Your task to perform on an android device: see sites visited before in the chrome app Image 0: 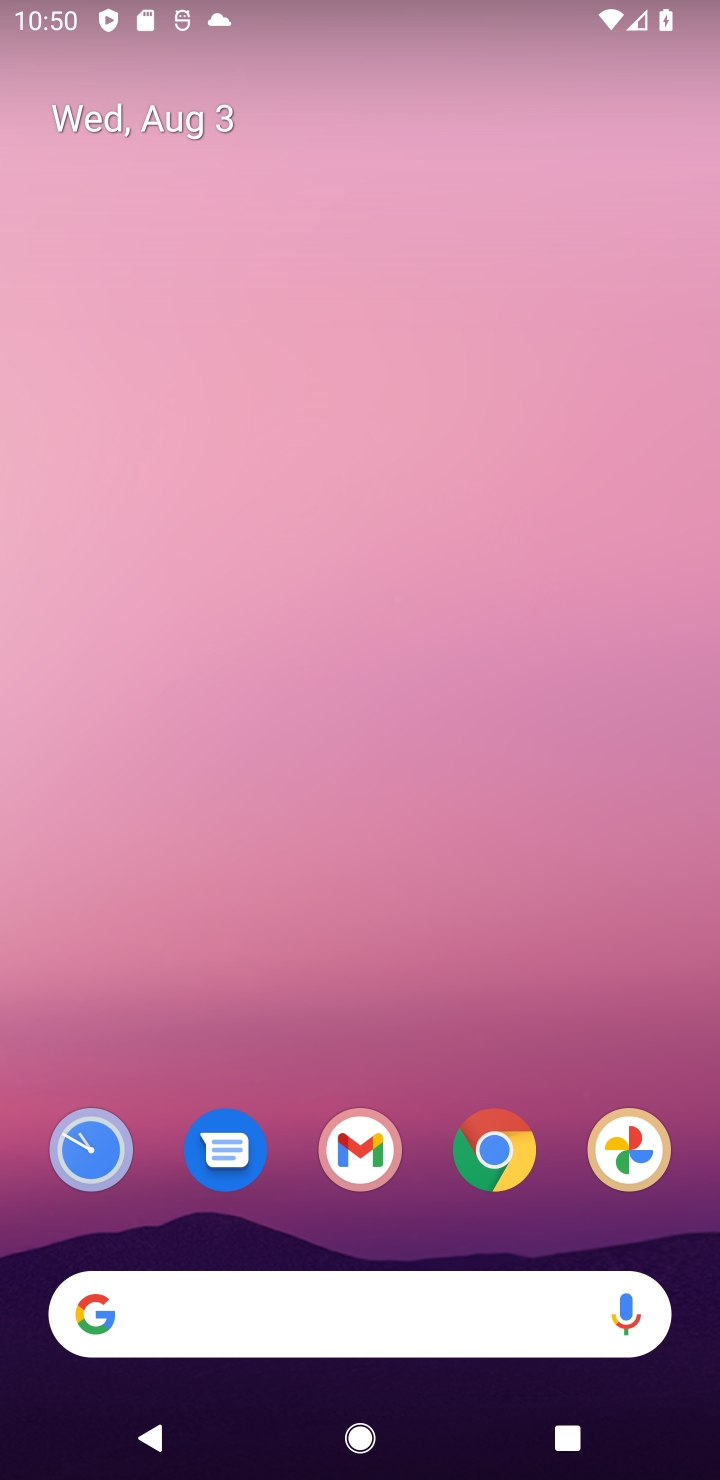
Step 0: press home button
Your task to perform on an android device: see sites visited before in the chrome app Image 1: 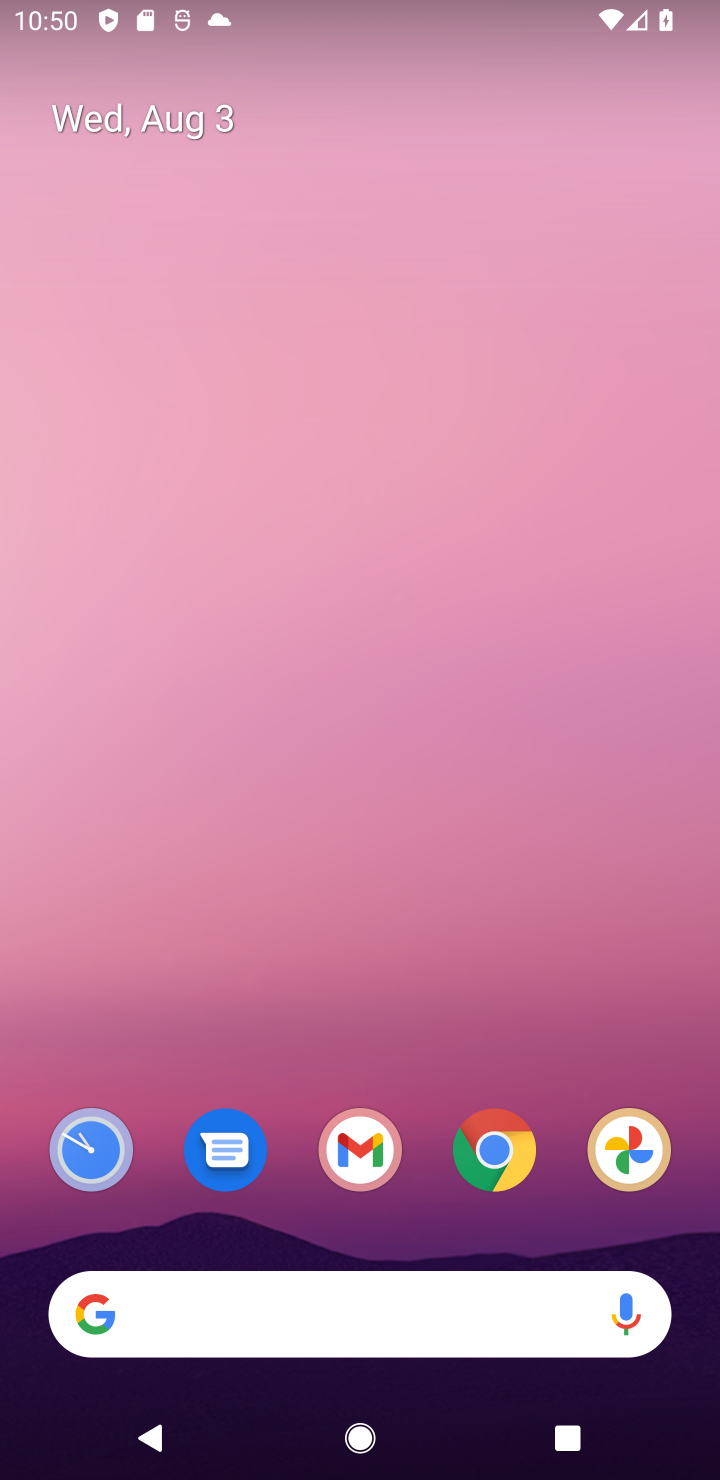
Step 1: drag from (554, 1099) to (557, 164)
Your task to perform on an android device: see sites visited before in the chrome app Image 2: 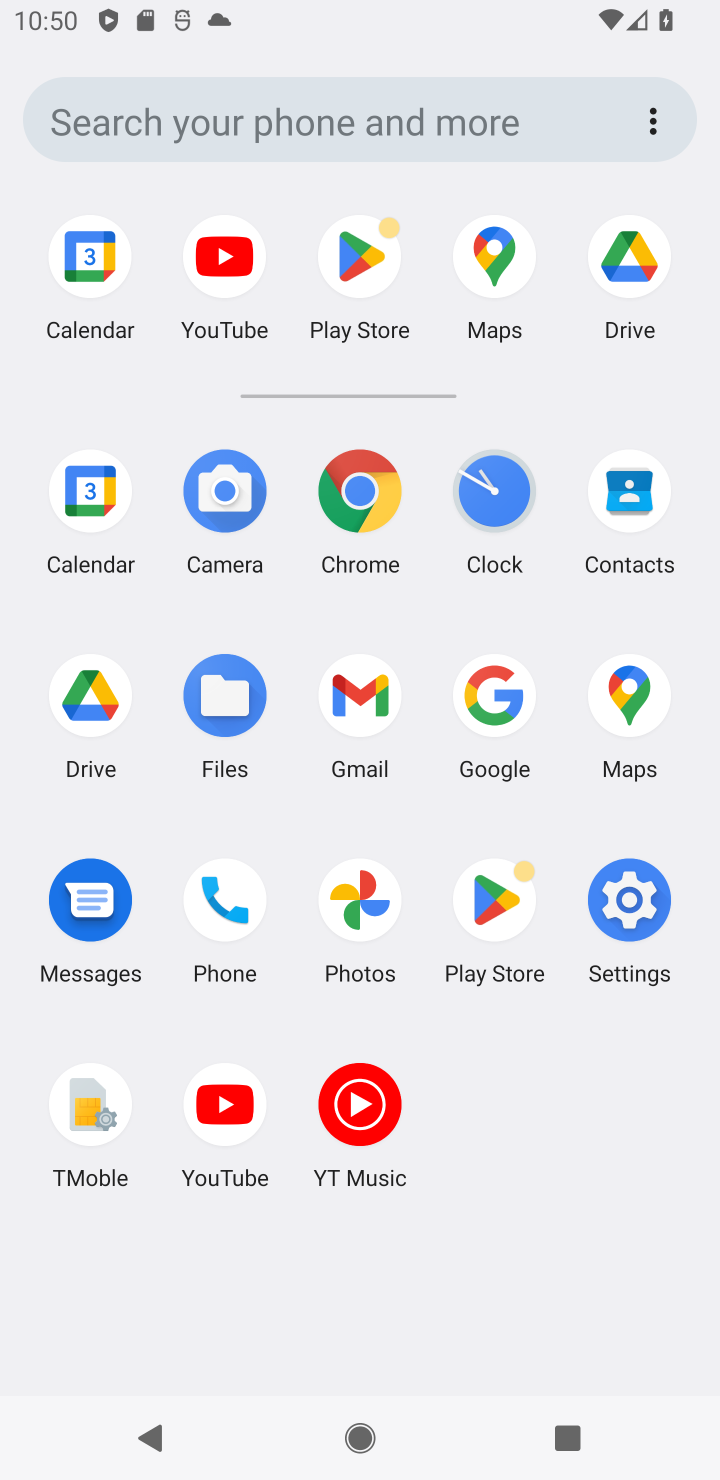
Step 2: click (374, 508)
Your task to perform on an android device: see sites visited before in the chrome app Image 3: 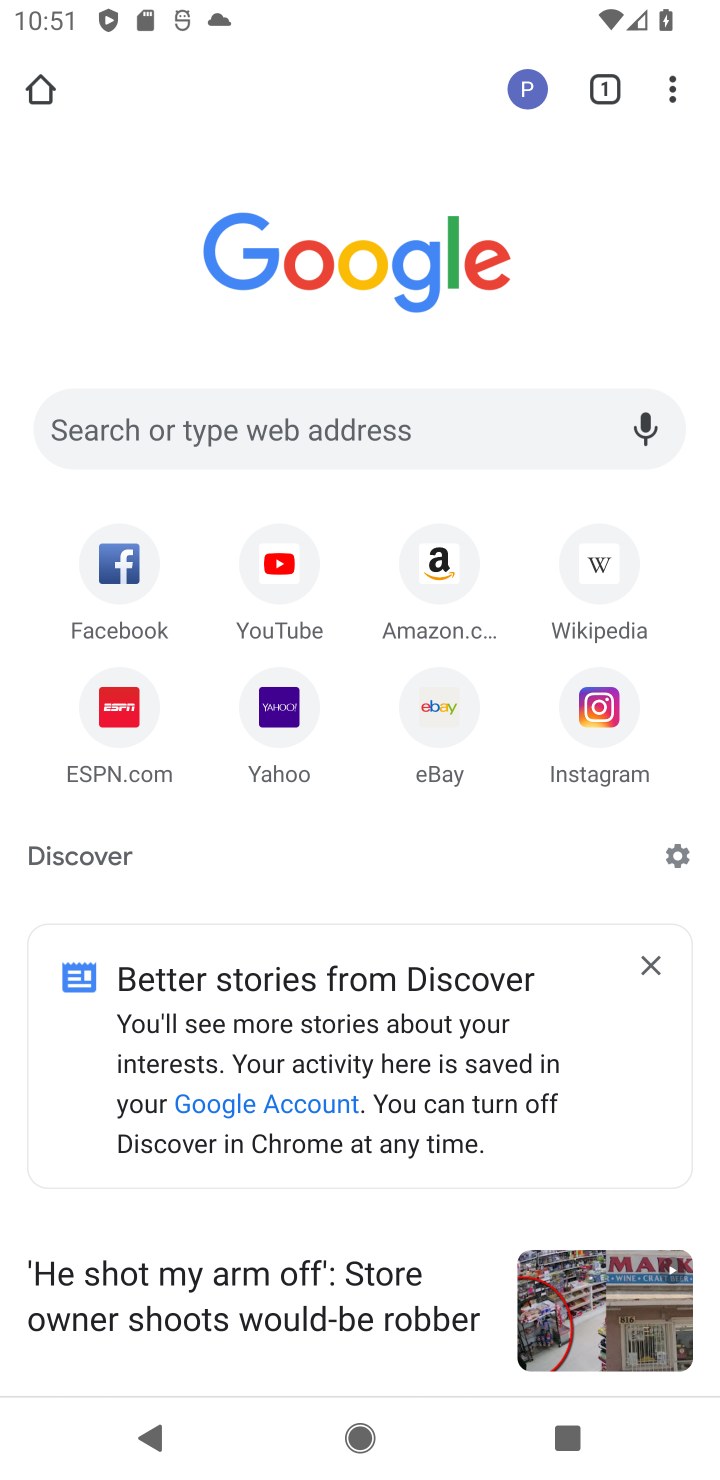
Step 3: click (669, 87)
Your task to perform on an android device: see sites visited before in the chrome app Image 4: 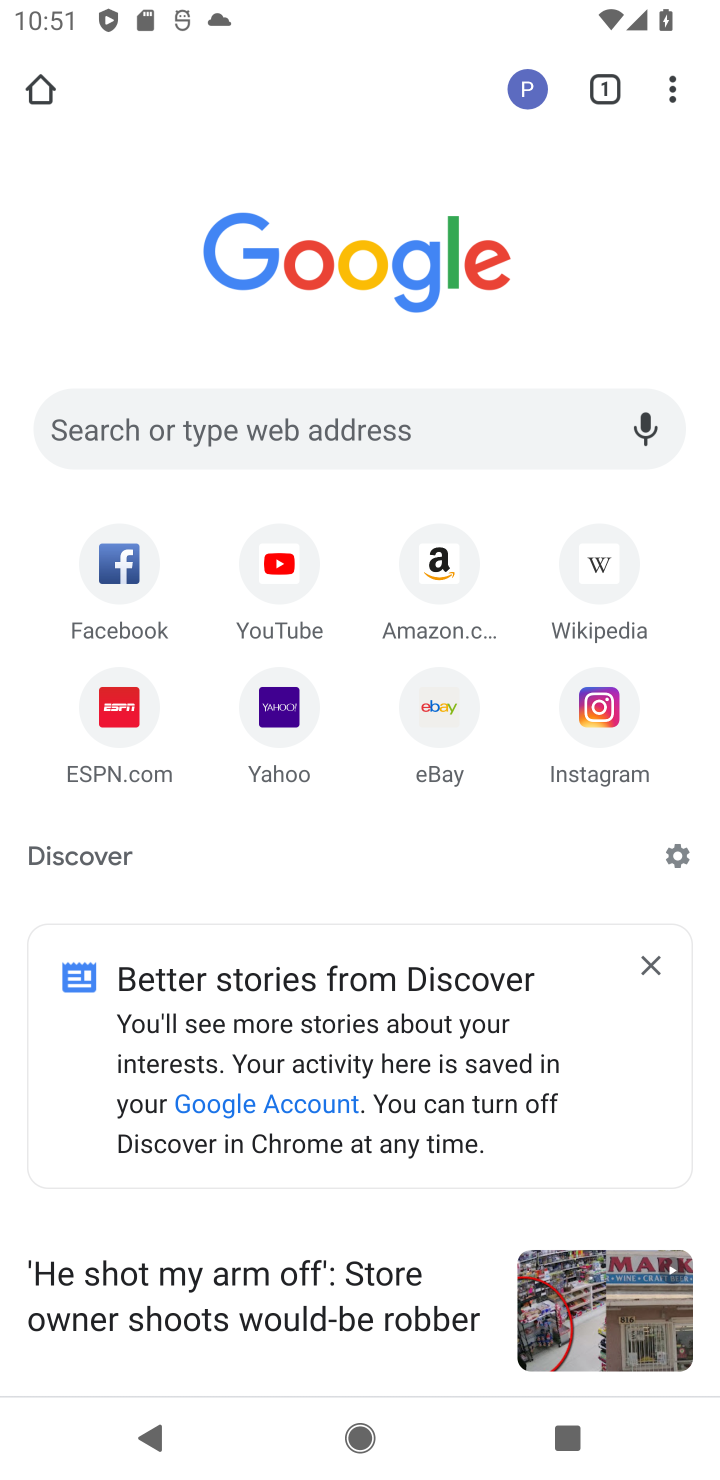
Step 4: click (673, 94)
Your task to perform on an android device: see sites visited before in the chrome app Image 5: 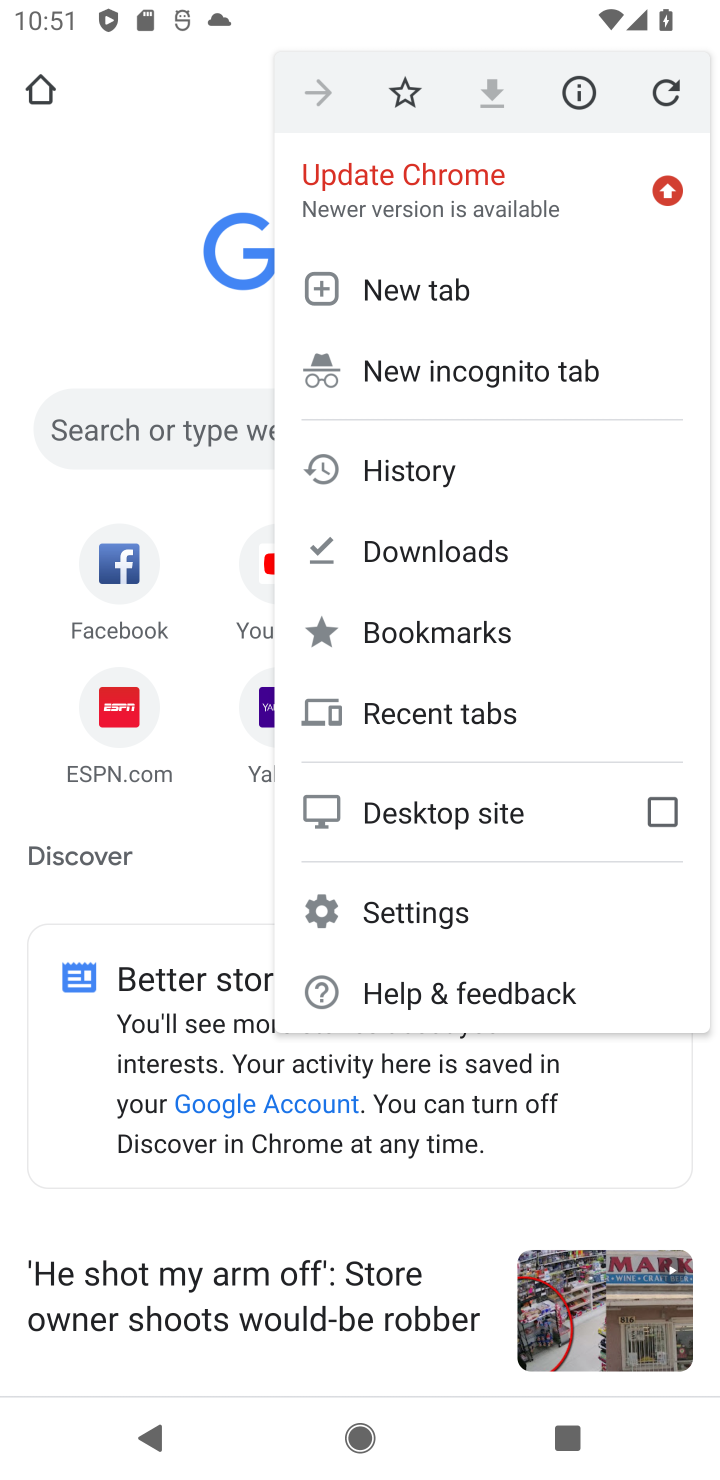
Step 5: click (445, 469)
Your task to perform on an android device: see sites visited before in the chrome app Image 6: 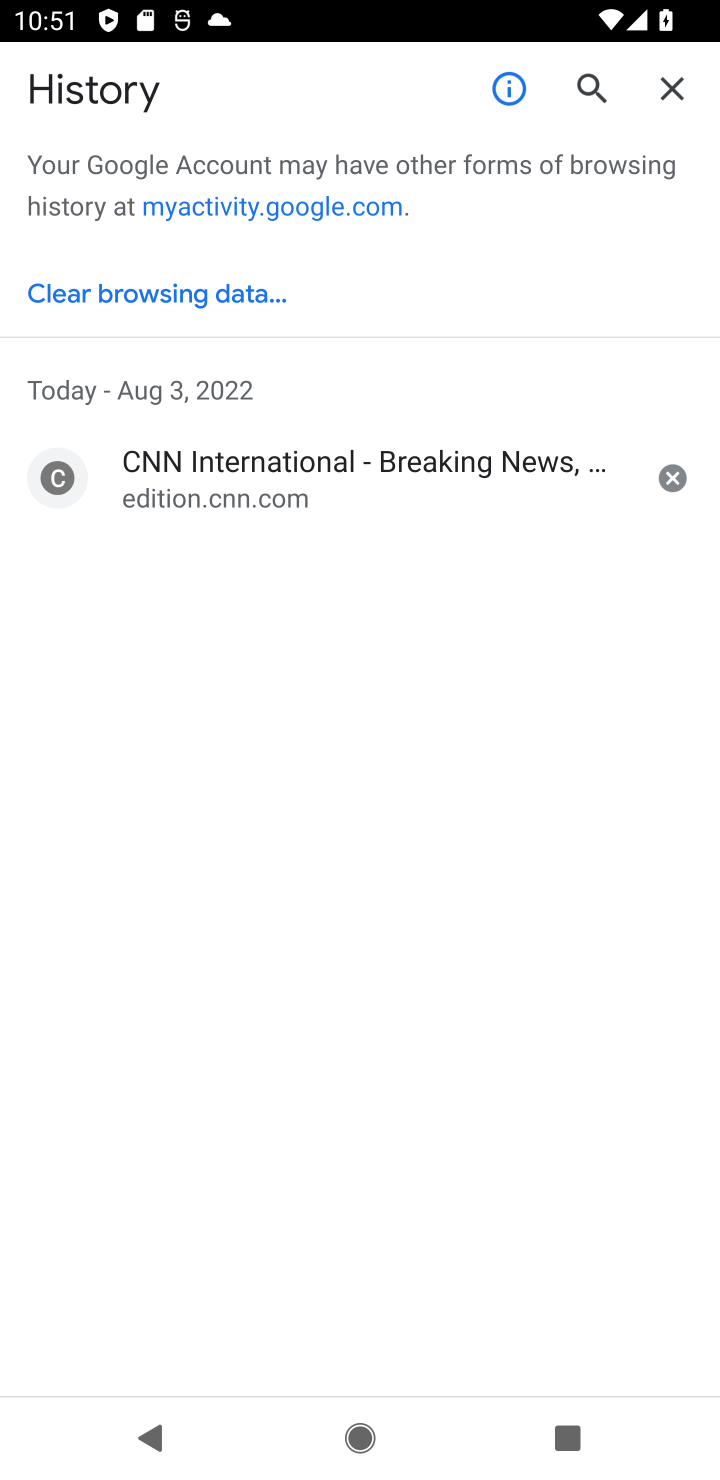
Step 6: task complete